Your task to perform on an android device: Open Google Chrome Image 0: 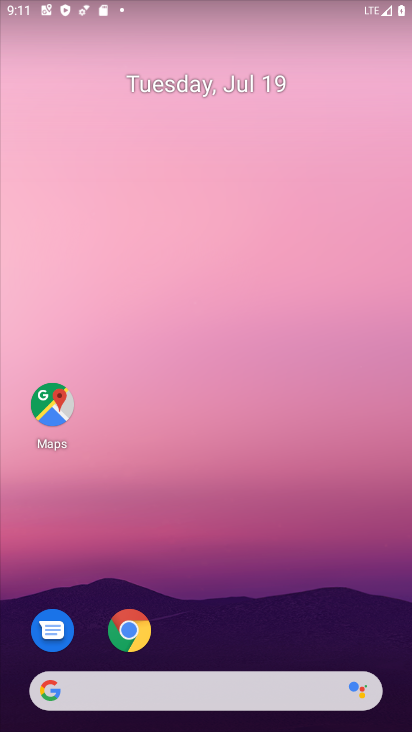
Step 0: click (131, 626)
Your task to perform on an android device: Open Google Chrome Image 1: 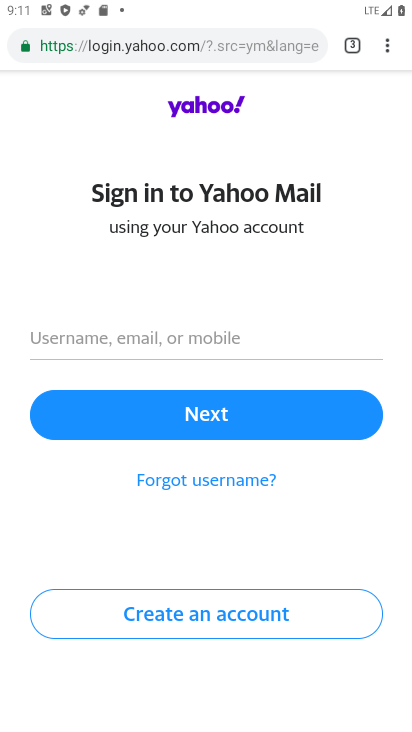
Step 1: task complete